Your task to perform on an android device: What is the news today? Image 0: 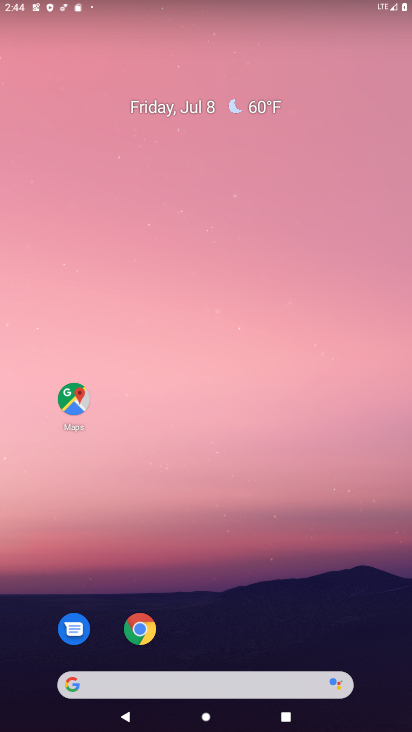
Step 0: drag from (210, 639) to (242, 262)
Your task to perform on an android device: What is the news today? Image 1: 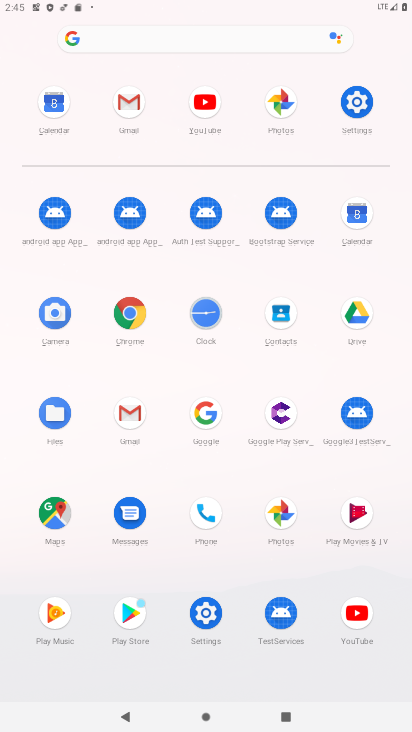
Step 1: click (207, 416)
Your task to perform on an android device: What is the news today? Image 2: 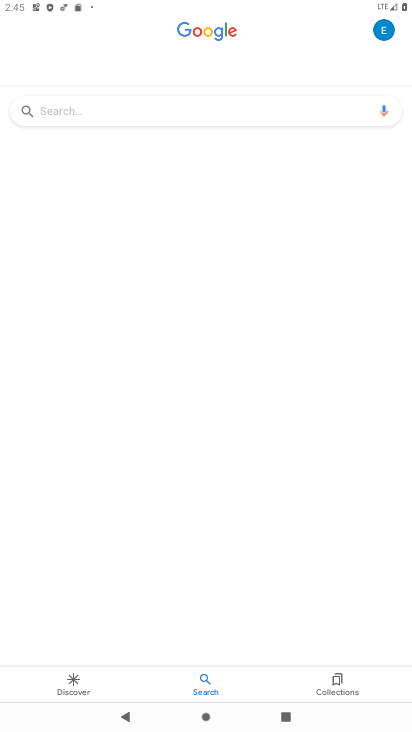
Step 2: click (146, 113)
Your task to perform on an android device: What is the news today? Image 3: 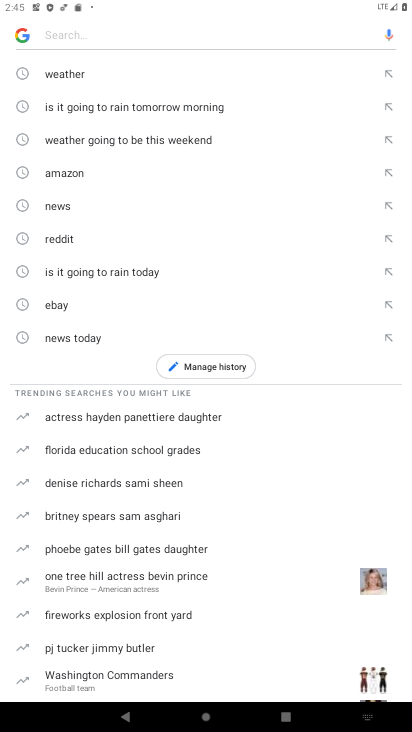
Step 3: type "news"
Your task to perform on an android device: What is the news today? Image 4: 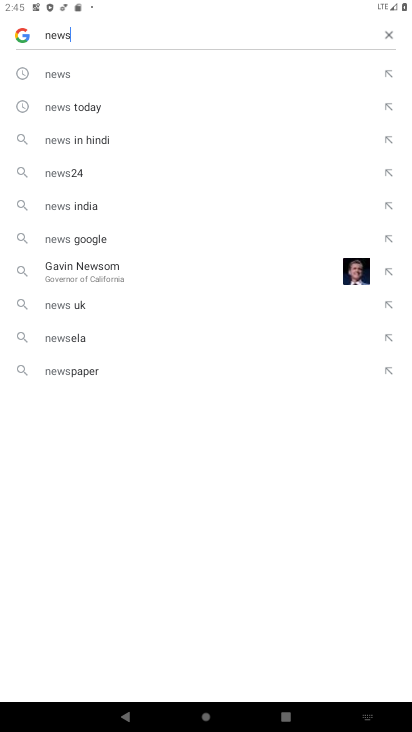
Step 4: click (65, 73)
Your task to perform on an android device: What is the news today? Image 5: 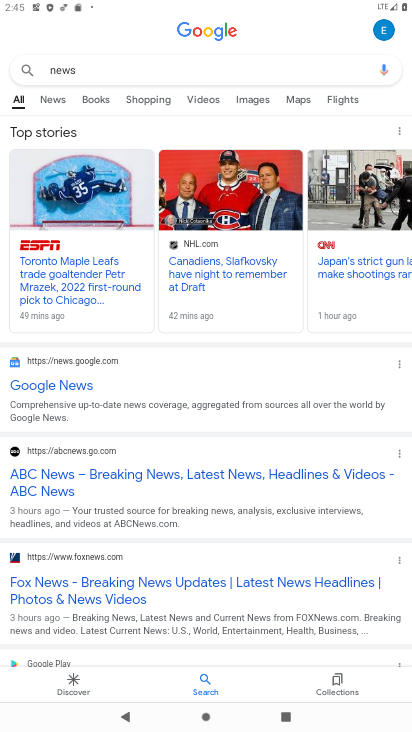
Step 5: click (48, 98)
Your task to perform on an android device: What is the news today? Image 6: 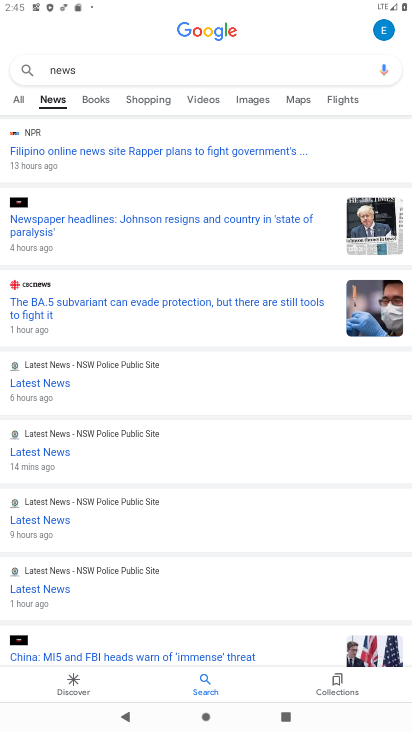
Step 6: task complete